Your task to perform on an android device: open wifi settings Image 0: 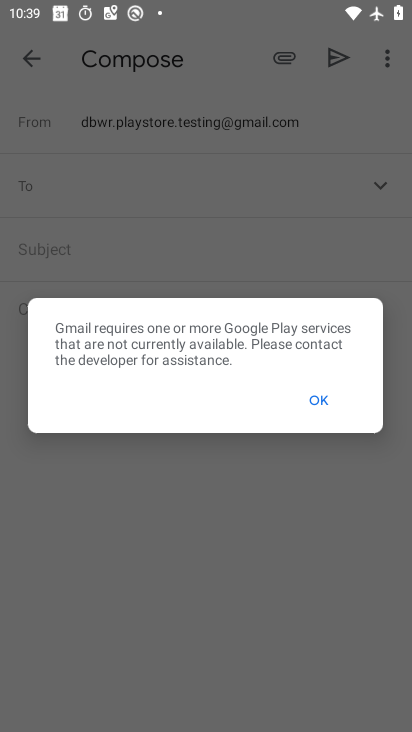
Step 0: click (308, 402)
Your task to perform on an android device: open wifi settings Image 1: 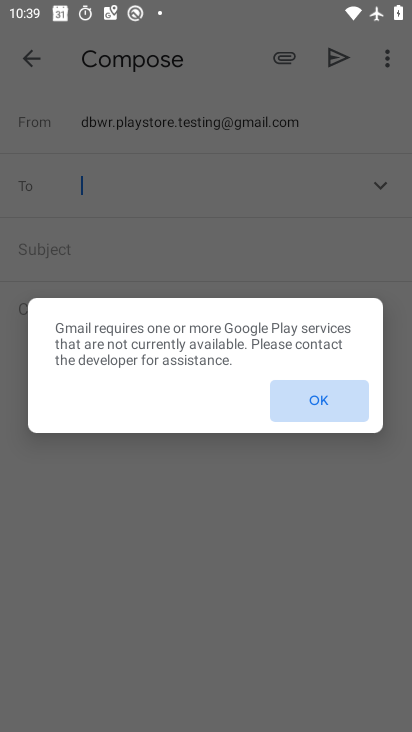
Step 1: click (313, 402)
Your task to perform on an android device: open wifi settings Image 2: 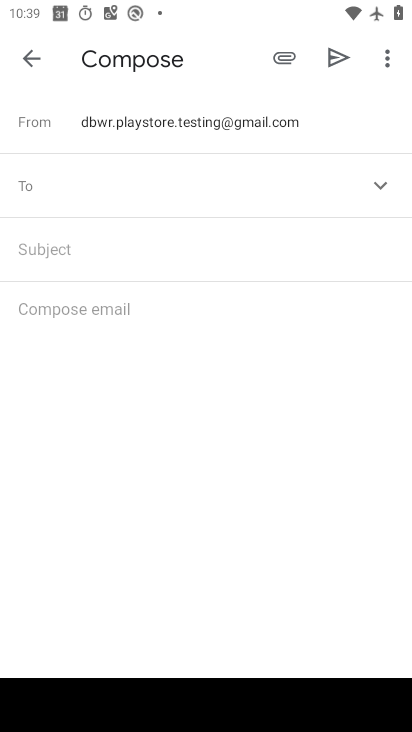
Step 2: click (321, 403)
Your task to perform on an android device: open wifi settings Image 3: 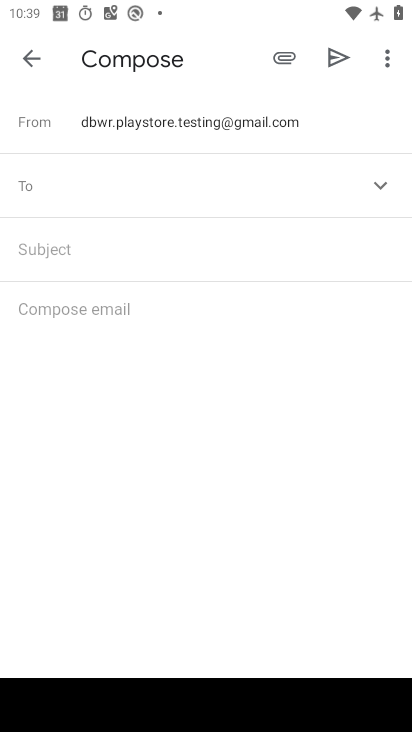
Step 3: press back button
Your task to perform on an android device: open wifi settings Image 4: 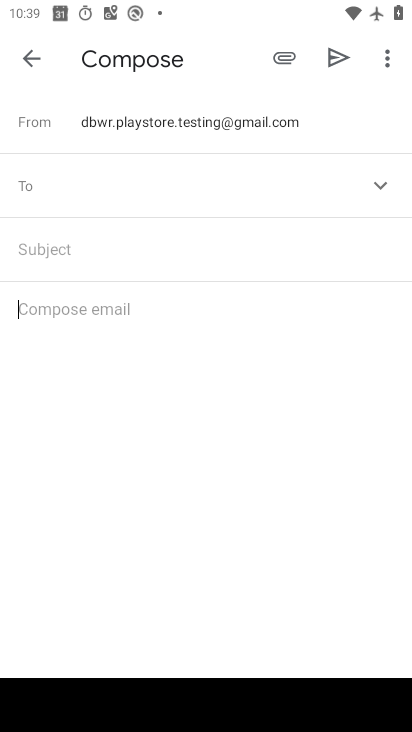
Step 4: press back button
Your task to perform on an android device: open wifi settings Image 5: 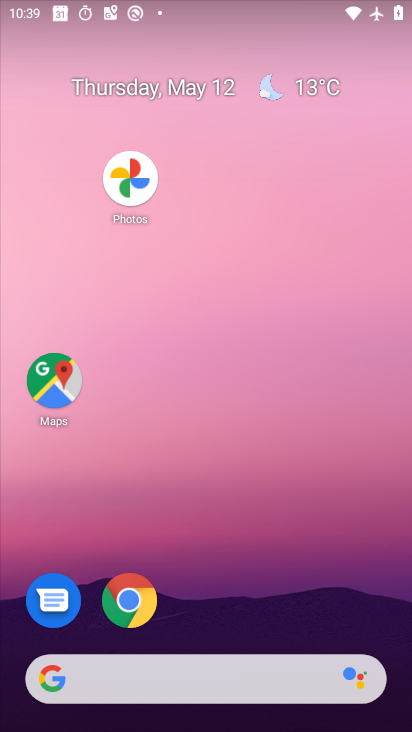
Step 5: drag from (325, 560) to (218, 102)
Your task to perform on an android device: open wifi settings Image 6: 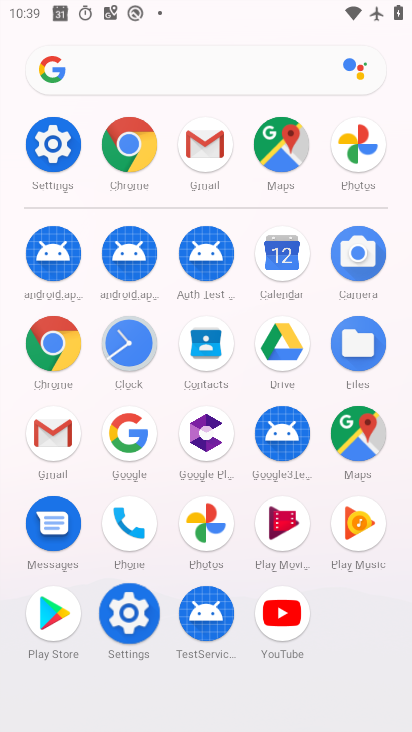
Step 6: click (43, 136)
Your task to perform on an android device: open wifi settings Image 7: 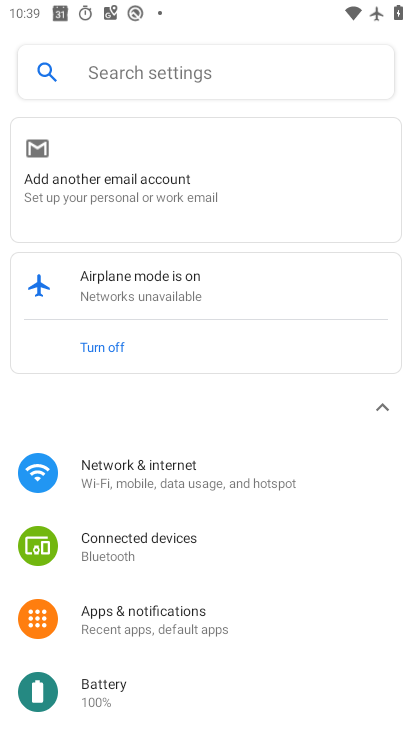
Step 7: click (146, 465)
Your task to perform on an android device: open wifi settings Image 8: 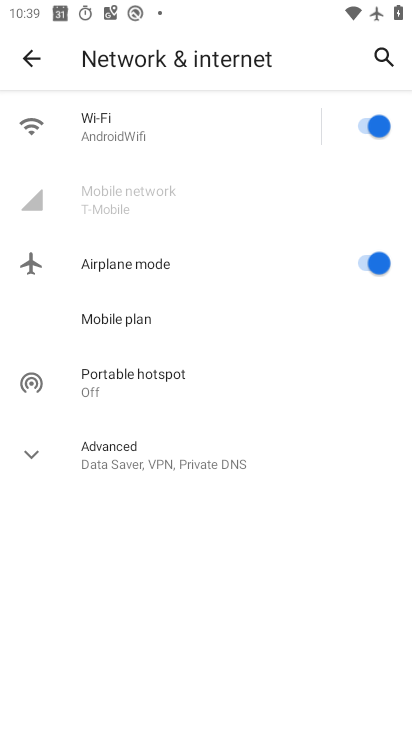
Step 8: task complete